Your task to perform on an android device: change notifications settings Image 0: 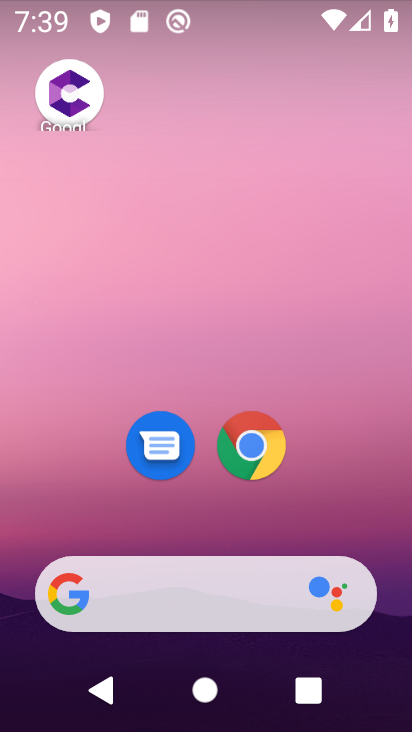
Step 0: drag from (361, 498) to (337, 88)
Your task to perform on an android device: change notifications settings Image 1: 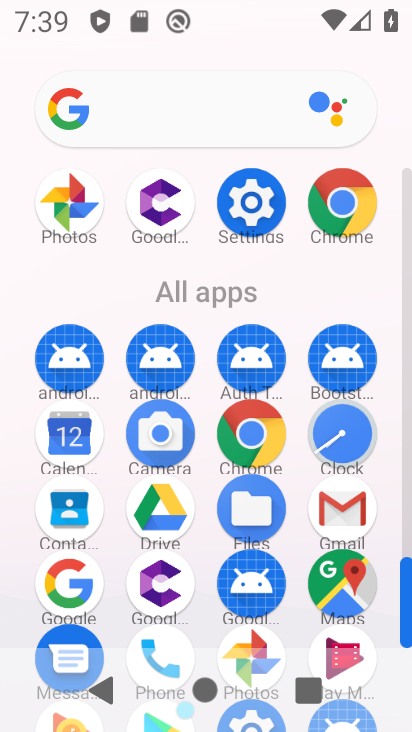
Step 1: click (268, 225)
Your task to perform on an android device: change notifications settings Image 2: 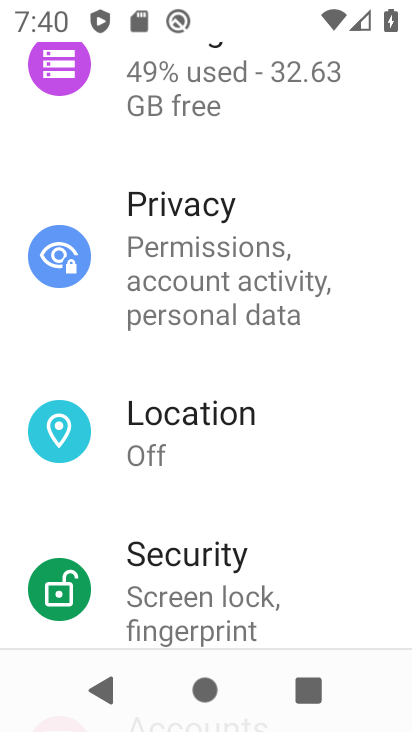
Step 2: drag from (292, 226) to (288, 560)
Your task to perform on an android device: change notifications settings Image 3: 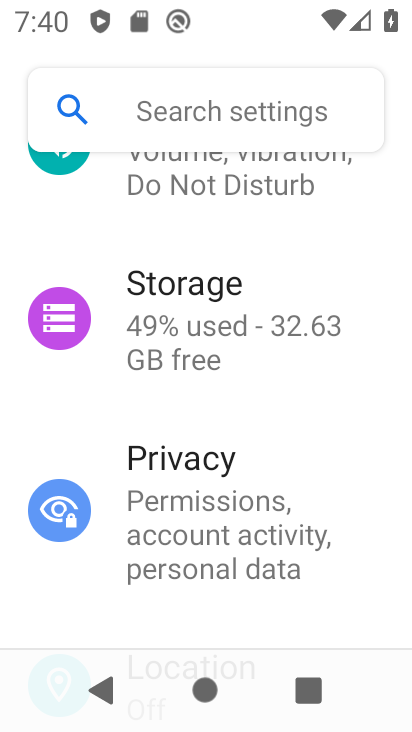
Step 3: click (325, 235)
Your task to perform on an android device: change notifications settings Image 4: 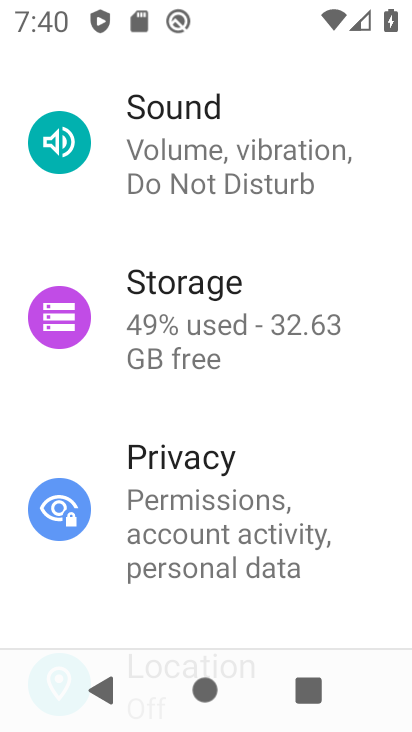
Step 4: drag from (324, 601) to (353, 257)
Your task to perform on an android device: change notifications settings Image 5: 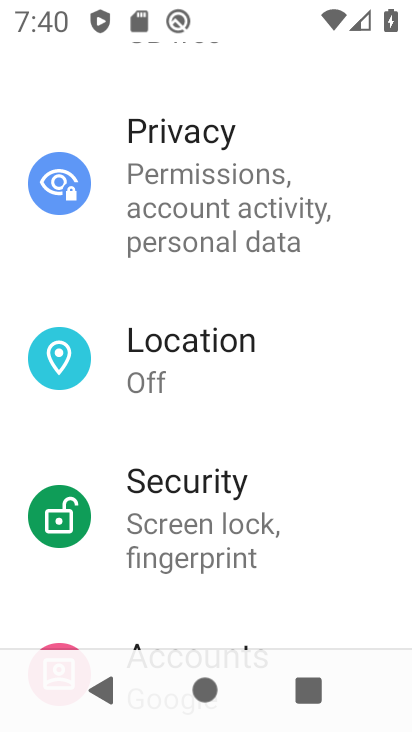
Step 5: drag from (313, 147) to (267, 654)
Your task to perform on an android device: change notifications settings Image 6: 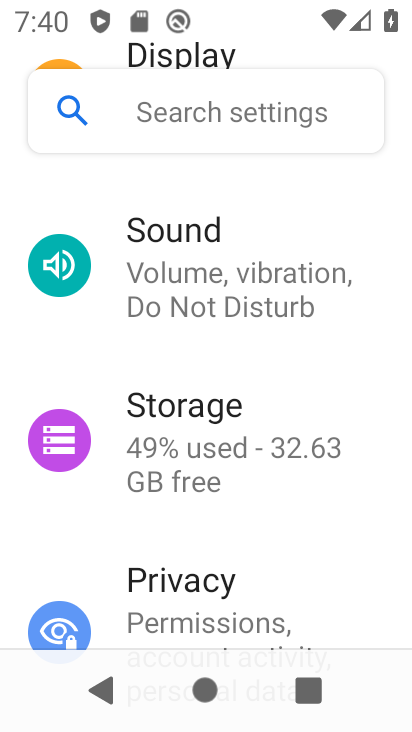
Step 6: drag from (294, 162) to (323, 561)
Your task to perform on an android device: change notifications settings Image 7: 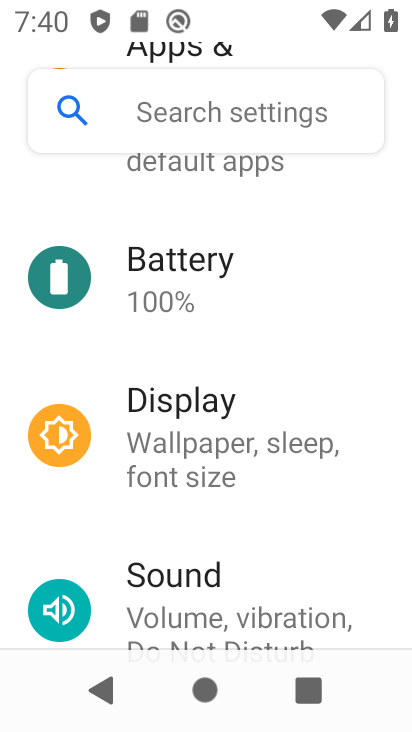
Step 7: drag from (301, 236) to (309, 547)
Your task to perform on an android device: change notifications settings Image 8: 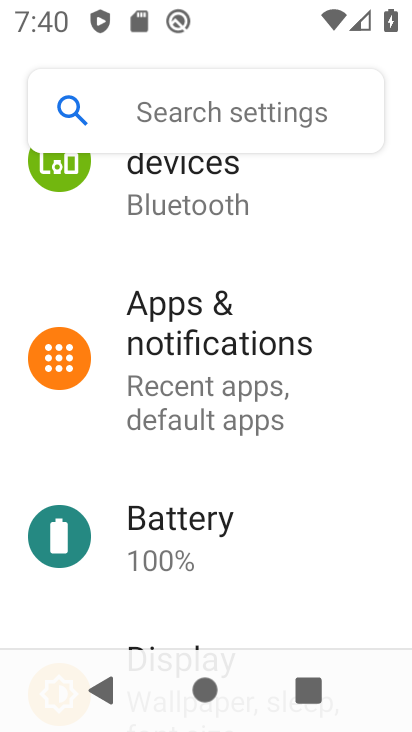
Step 8: click (256, 338)
Your task to perform on an android device: change notifications settings Image 9: 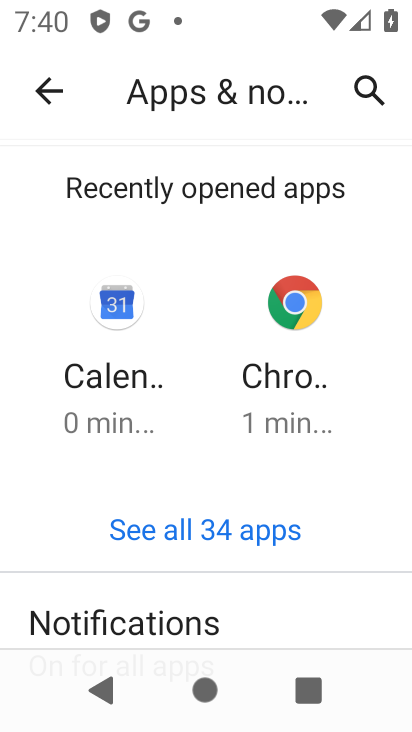
Step 9: drag from (323, 499) to (290, 260)
Your task to perform on an android device: change notifications settings Image 10: 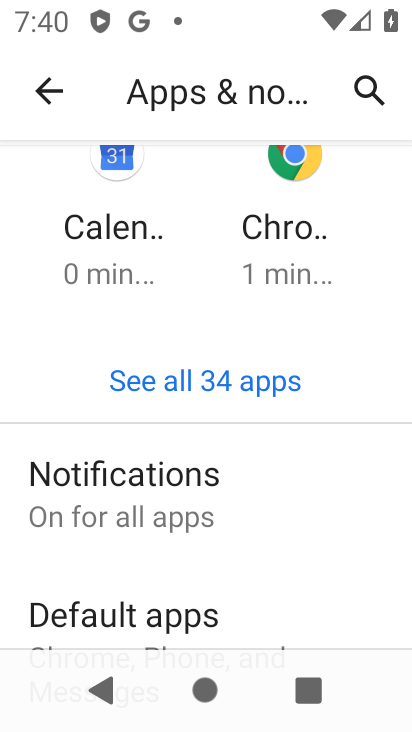
Step 10: click (155, 514)
Your task to perform on an android device: change notifications settings Image 11: 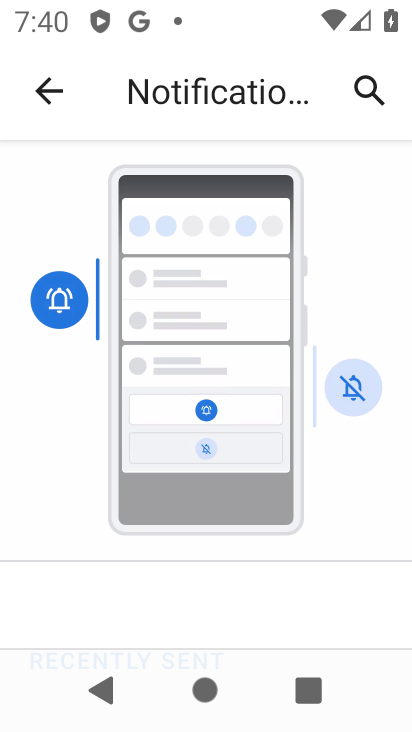
Step 11: drag from (281, 634) to (348, 199)
Your task to perform on an android device: change notifications settings Image 12: 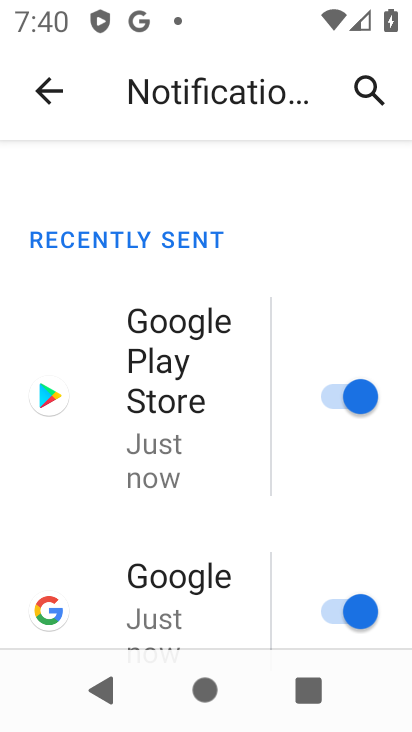
Step 12: drag from (238, 557) to (244, 206)
Your task to perform on an android device: change notifications settings Image 13: 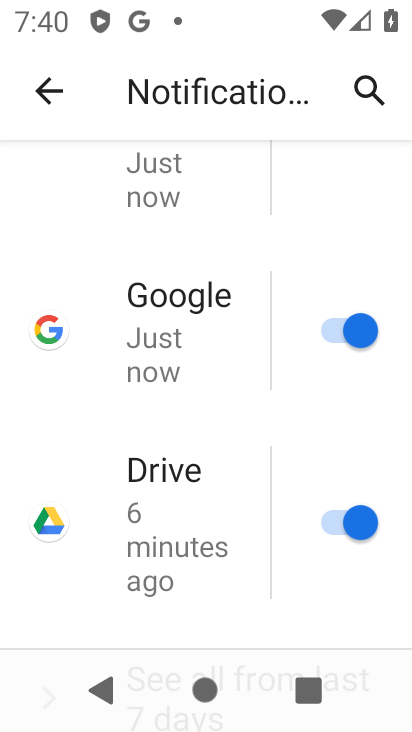
Step 13: drag from (258, 611) to (314, 161)
Your task to perform on an android device: change notifications settings Image 14: 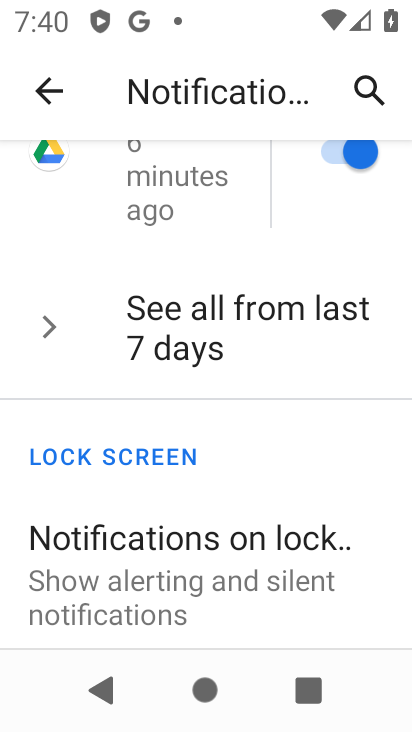
Step 14: drag from (238, 493) to (235, 248)
Your task to perform on an android device: change notifications settings Image 15: 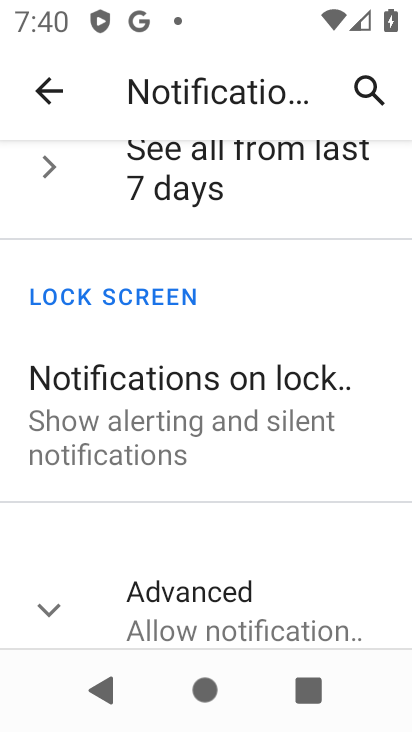
Step 15: drag from (251, 223) to (260, 523)
Your task to perform on an android device: change notifications settings Image 16: 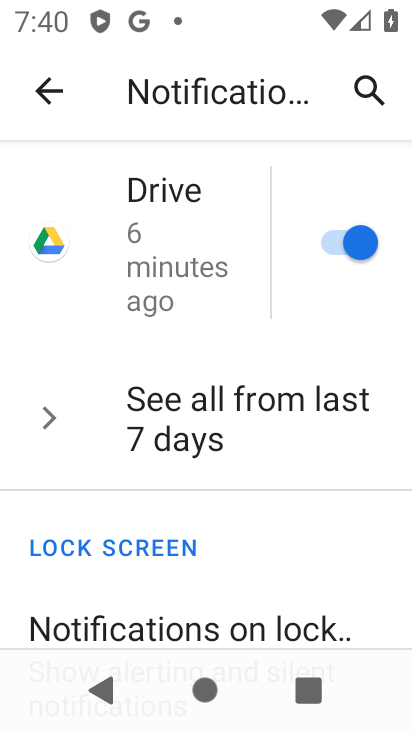
Step 16: click (337, 237)
Your task to perform on an android device: change notifications settings Image 17: 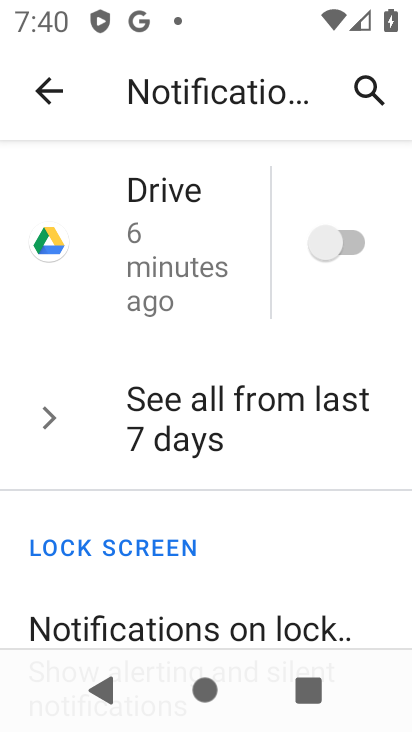
Step 17: task complete